Your task to perform on an android device: What's the weather? Image 0: 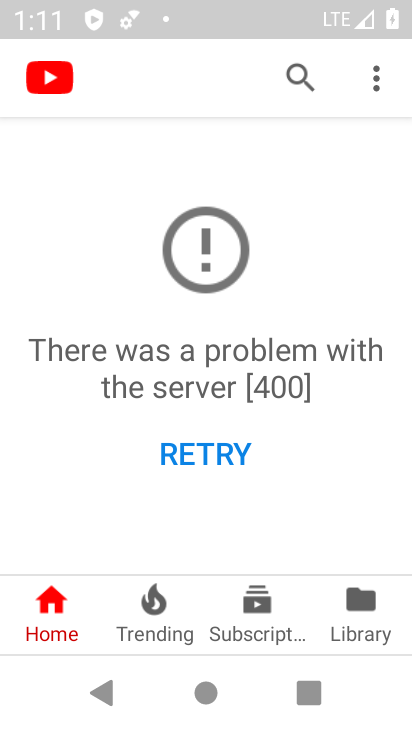
Step 0: press home button
Your task to perform on an android device: What's the weather? Image 1: 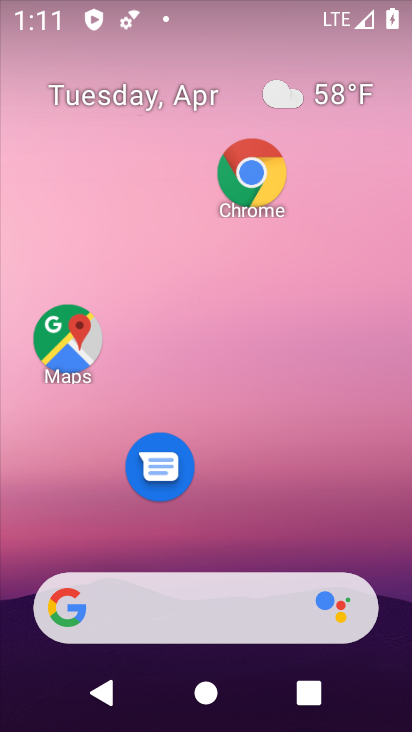
Step 1: drag from (196, 429) to (242, 1)
Your task to perform on an android device: What's the weather? Image 2: 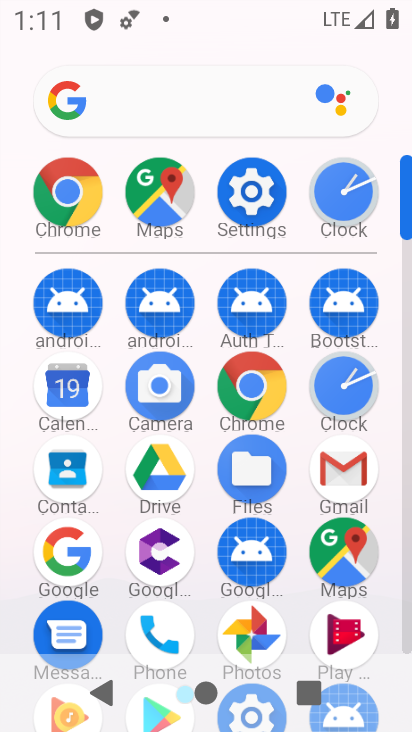
Step 2: click (246, 383)
Your task to perform on an android device: What's the weather? Image 3: 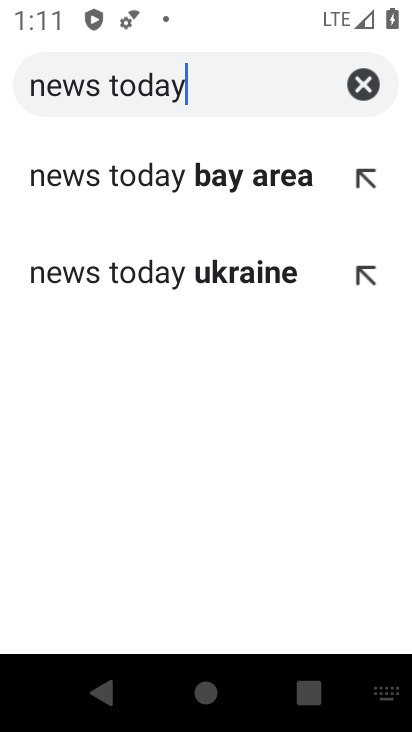
Step 3: click (351, 87)
Your task to perform on an android device: What's the weather? Image 4: 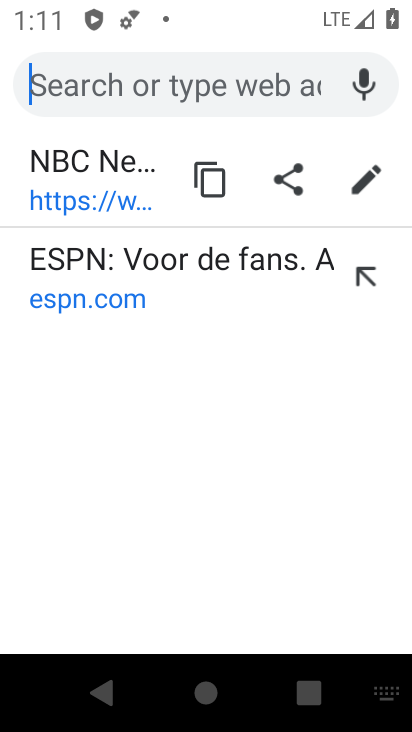
Step 4: click (223, 85)
Your task to perform on an android device: What's the weather? Image 5: 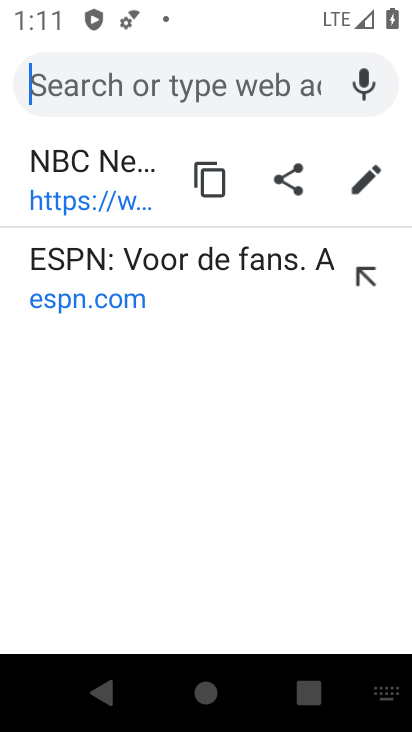
Step 5: type "weather"
Your task to perform on an android device: What's the weather? Image 6: 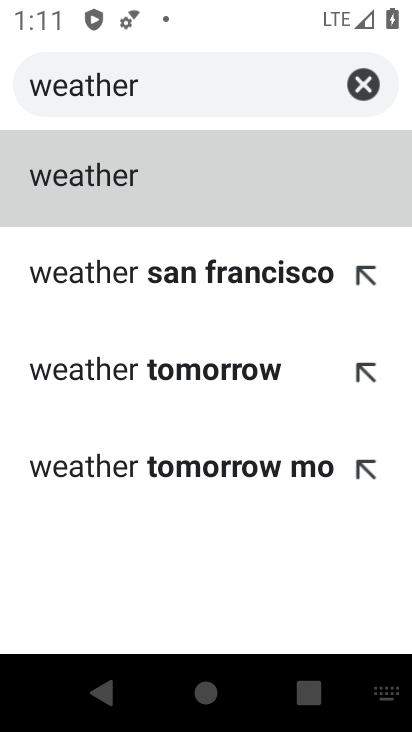
Step 6: click (238, 187)
Your task to perform on an android device: What's the weather? Image 7: 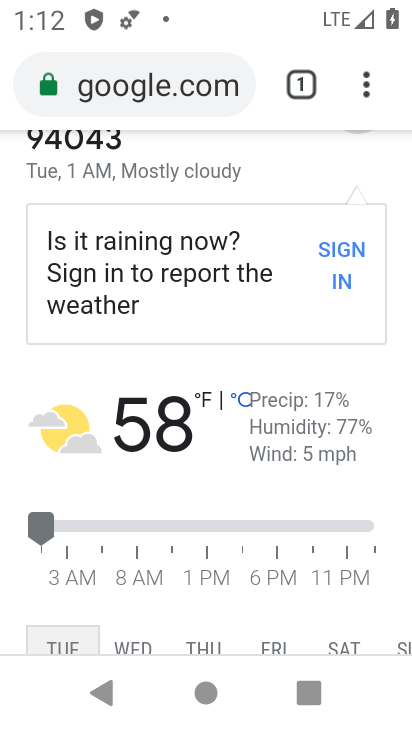
Step 7: task complete